Your task to perform on an android device: turn notification dots off Image 0: 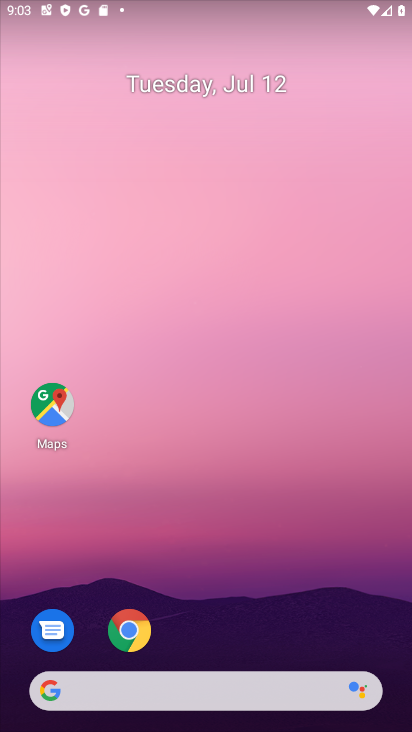
Step 0: drag from (243, 641) to (228, 125)
Your task to perform on an android device: turn notification dots off Image 1: 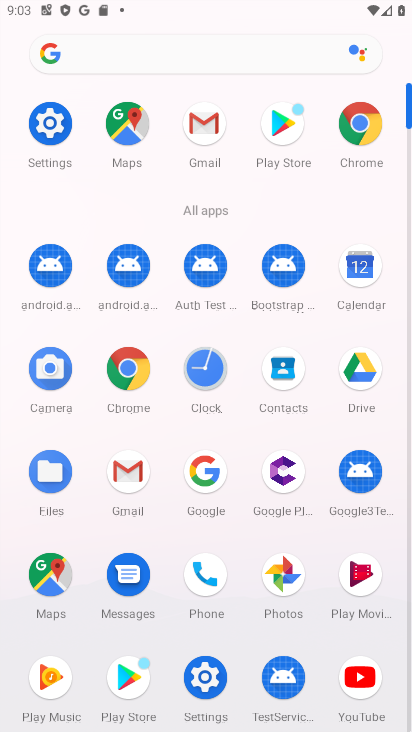
Step 1: click (49, 119)
Your task to perform on an android device: turn notification dots off Image 2: 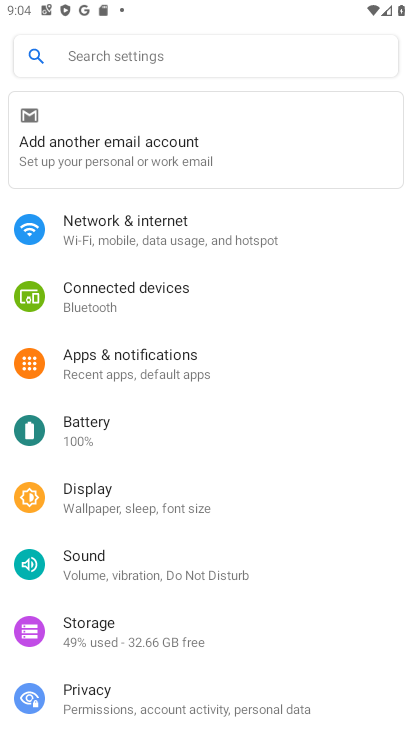
Step 2: click (142, 357)
Your task to perform on an android device: turn notification dots off Image 3: 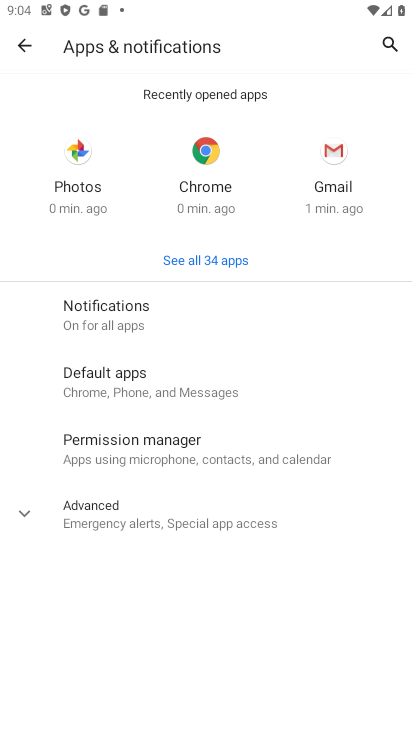
Step 3: click (137, 316)
Your task to perform on an android device: turn notification dots off Image 4: 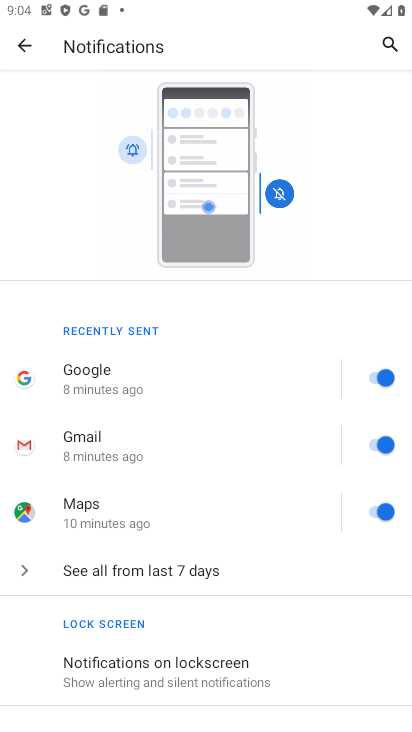
Step 4: drag from (222, 576) to (213, 370)
Your task to perform on an android device: turn notification dots off Image 5: 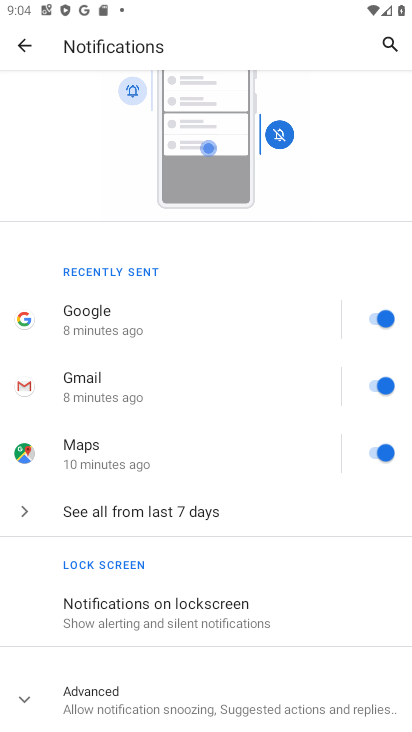
Step 5: drag from (183, 645) to (158, 370)
Your task to perform on an android device: turn notification dots off Image 6: 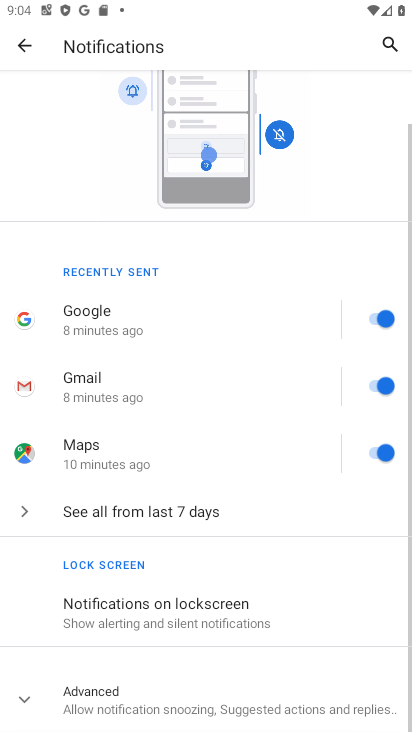
Step 6: click (79, 698)
Your task to perform on an android device: turn notification dots off Image 7: 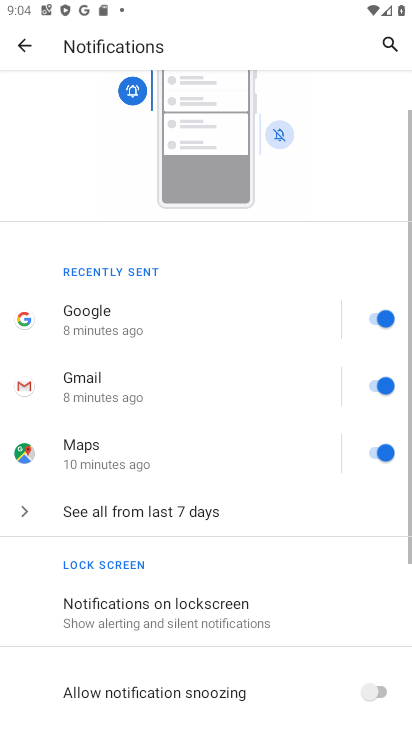
Step 7: drag from (171, 645) to (181, 230)
Your task to perform on an android device: turn notification dots off Image 8: 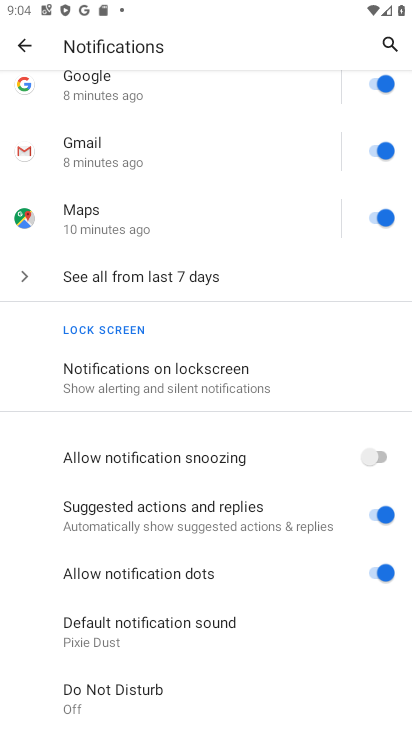
Step 8: click (380, 575)
Your task to perform on an android device: turn notification dots off Image 9: 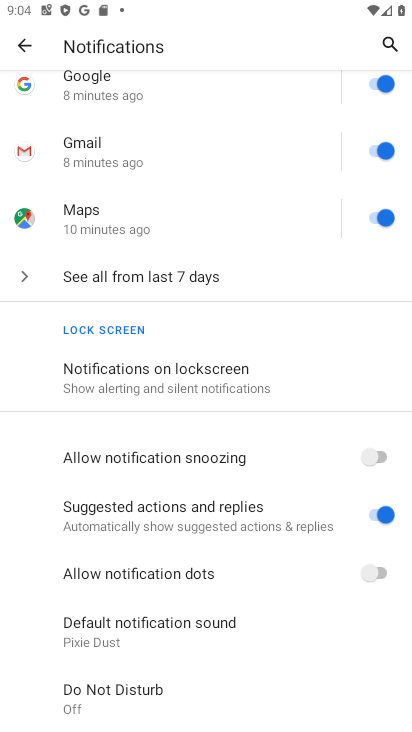
Step 9: task complete